Your task to perform on an android device: Go to Google Image 0: 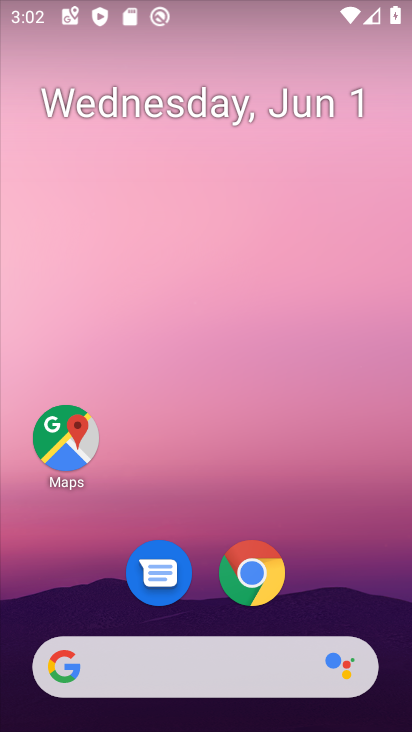
Step 0: drag from (156, 611) to (141, 54)
Your task to perform on an android device: Go to Google Image 1: 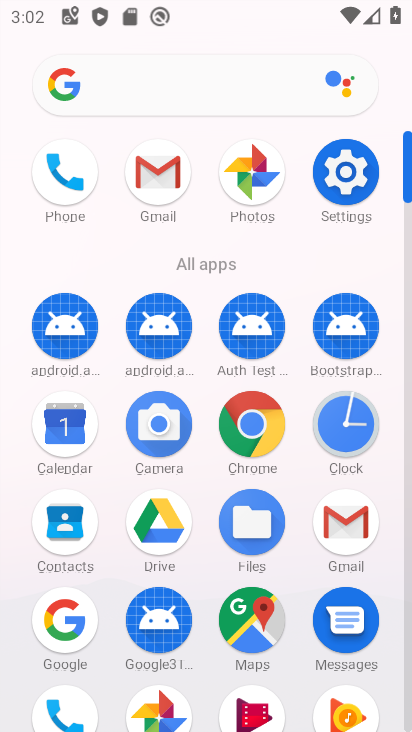
Step 1: click (65, 628)
Your task to perform on an android device: Go to Google Image 2: 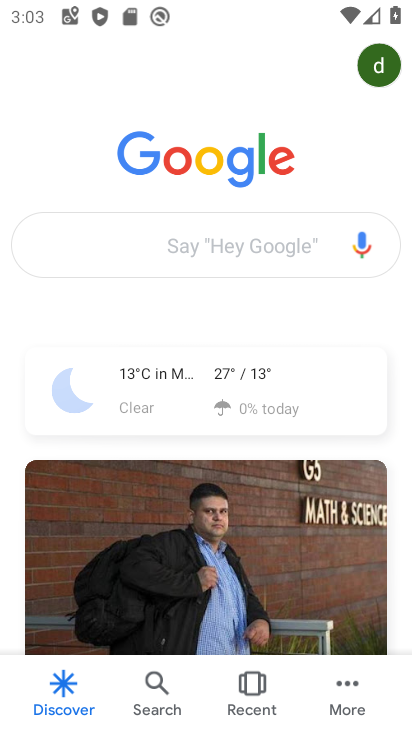
Step 2: task complete